Your task to perform on an android device: turn off data saver in the chrome app Image 0: 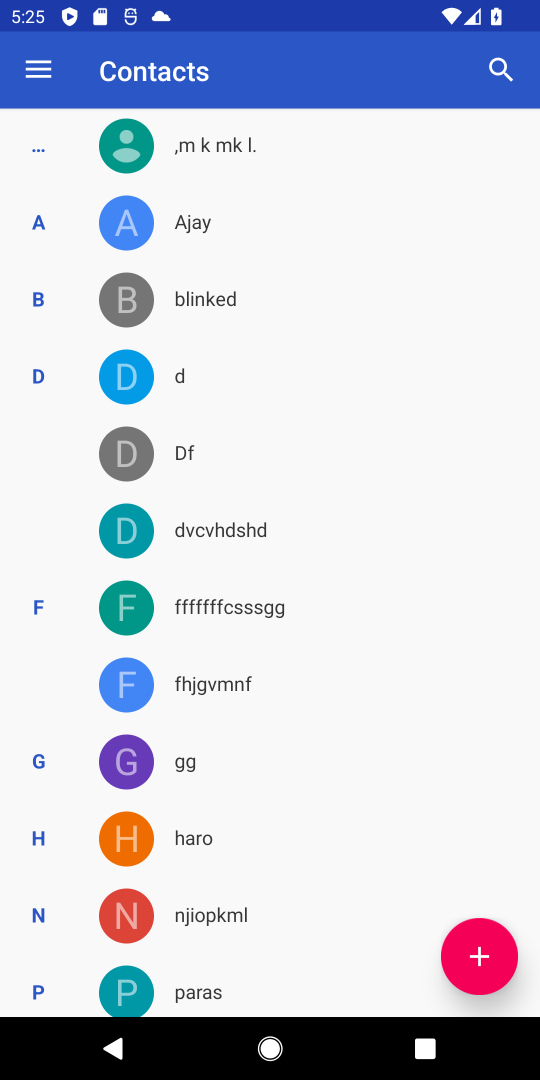
Step 0: press back button
Your task to perform on an android device: turn off data saver in the chrome app Image 1: 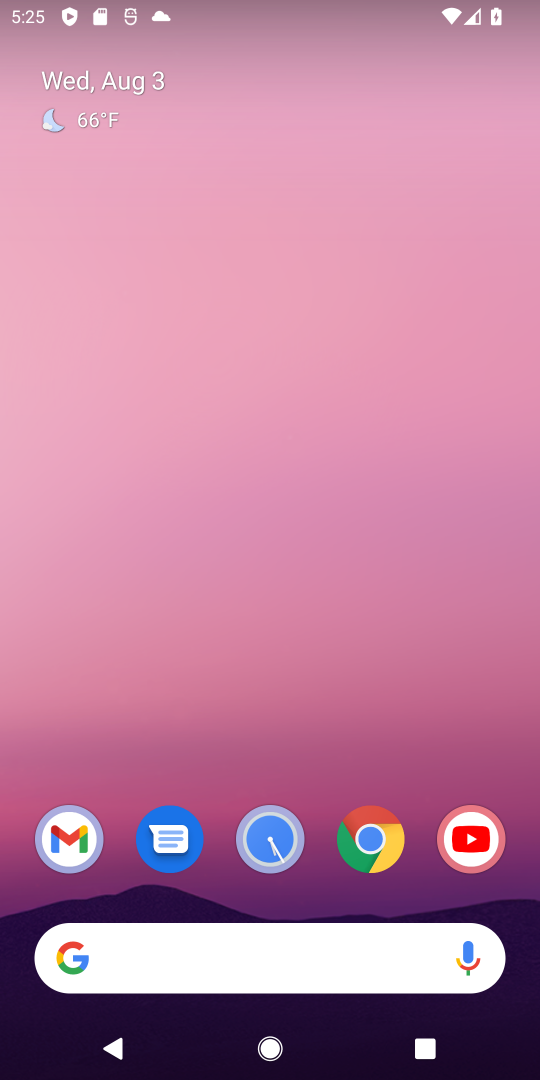
Step 1: click (371, 845)
Your task to perform on an android device: turn off data saver in the chrome app Image 2: 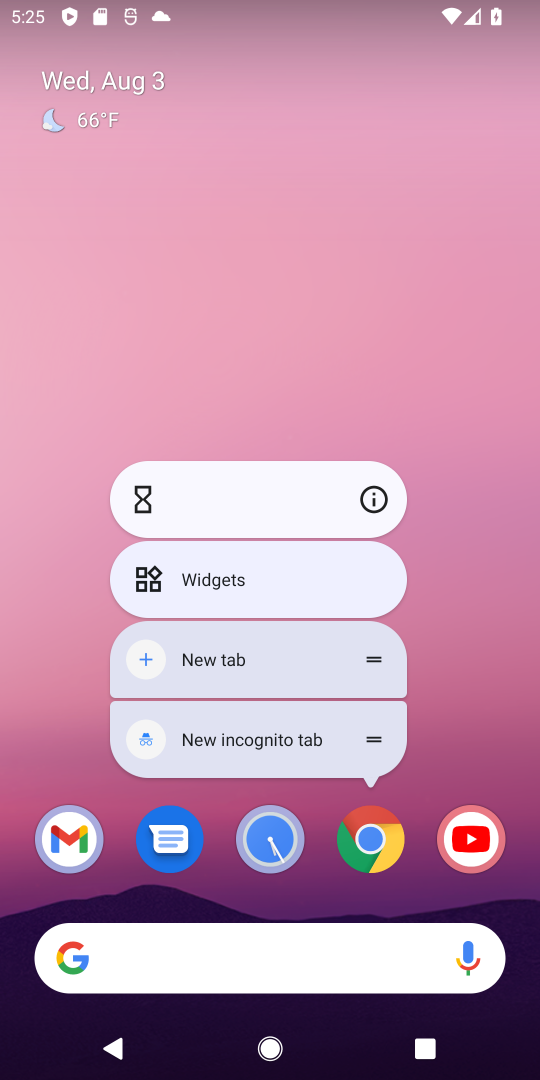
Step 2: click (375, 847)
Your task to perform on an android device: turn off data saver in the chrome app Image 3: 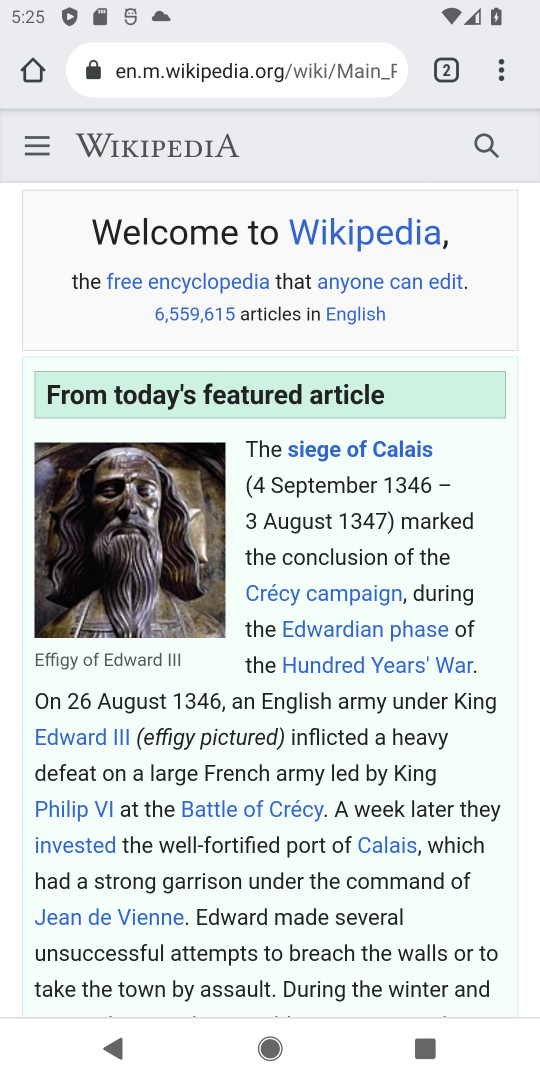
Step 3: drag from (511, 85) to (288, 880)
Your task to perform on an android device: turn off data saver in the chrome app Image 4: 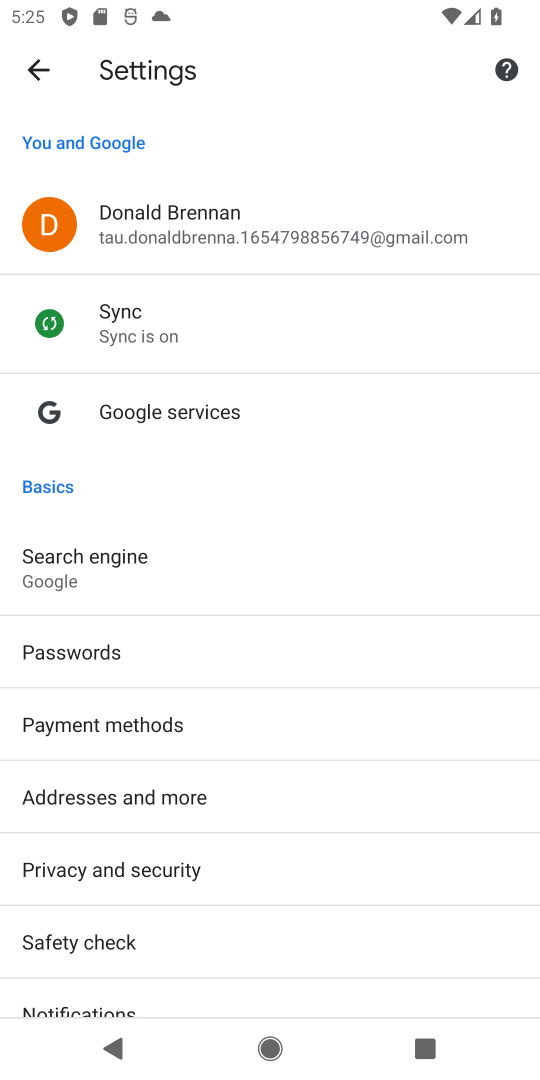
Step 4: drag from (208, 912) to (331, 59)
Your task to perform on an android device: turn off data saver in the chrome app Image 5: 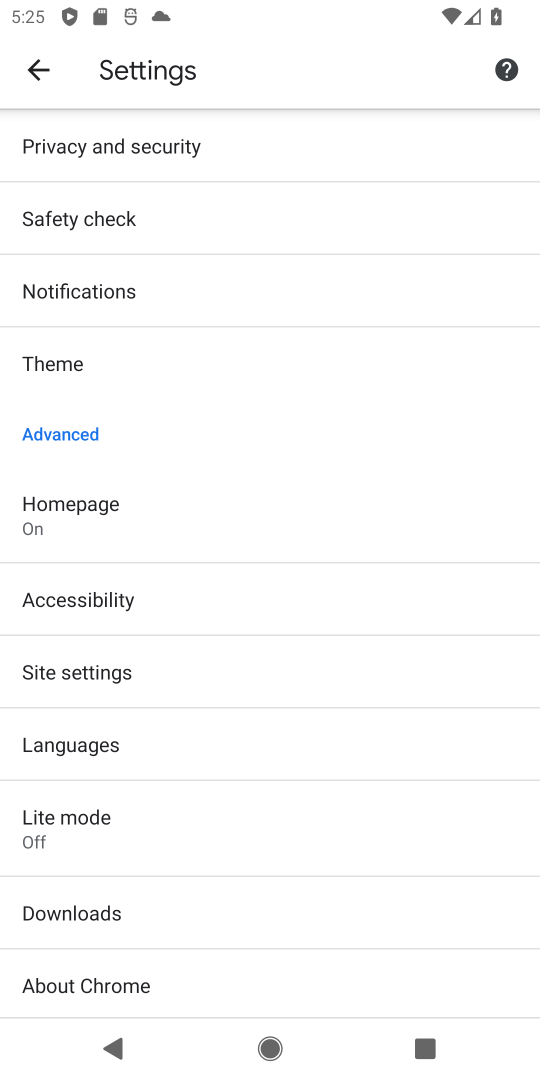
Step 5: click (113, 823)
Your task to perform on an android device: turn off data saver in the chrome app Image 6: 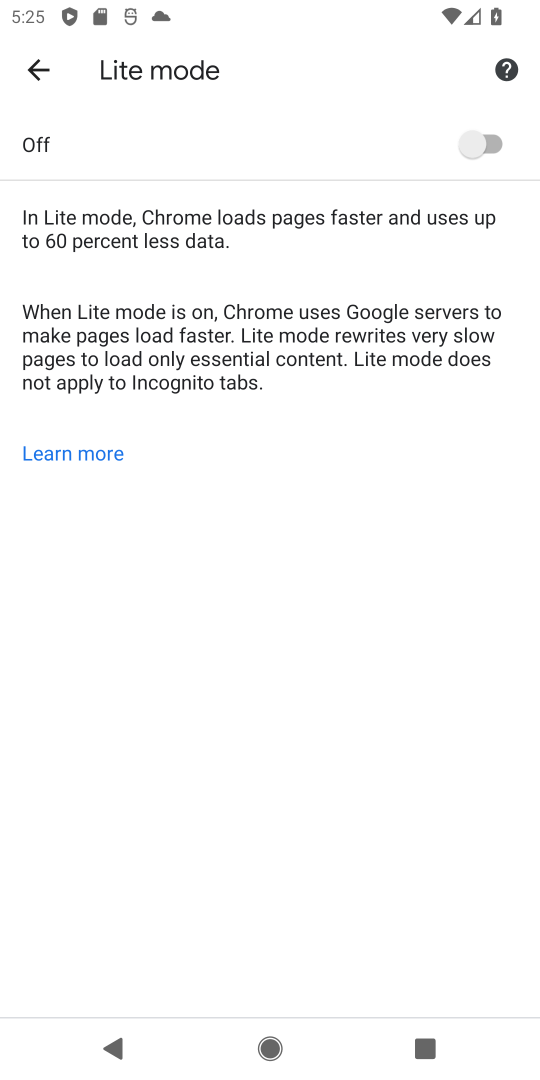
Step 6: task complete